Your task to perform on an android device: find which apps use the phone's location Image 0: 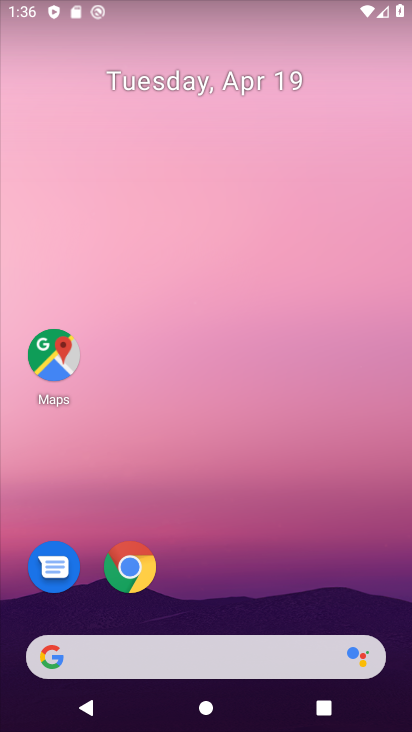
Step 0: drag from (239, 580) to (233, 205)
Your task to perform on an android device: find which apps use the phone's location Image 1: 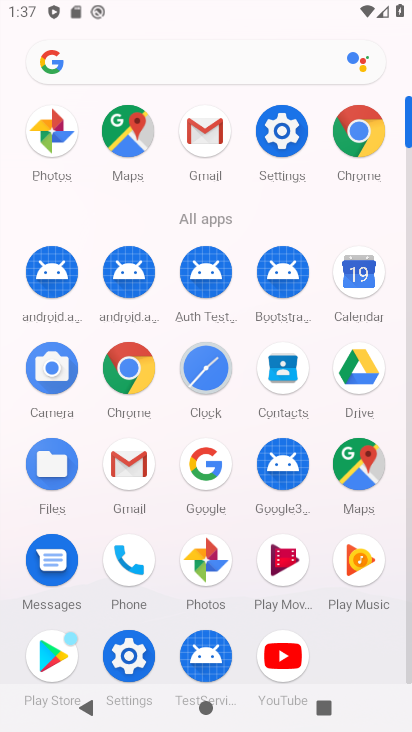
Step 1: click (291, 137)
Your task to perform on an android device: find which apps use the phone's location Image 2: 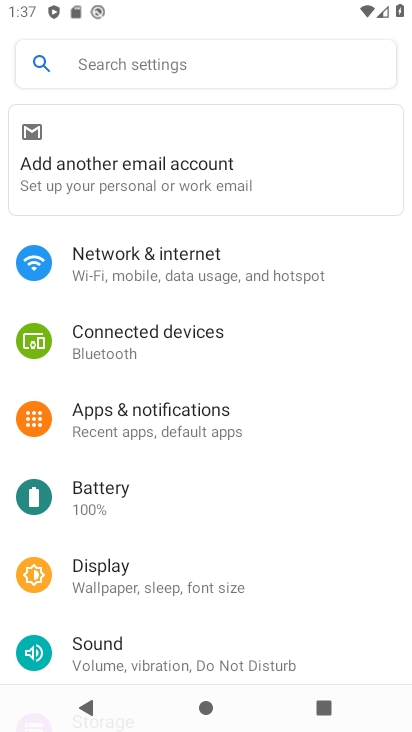
Step 2: drag from (207, 603) to (186, 178)
Your task to perform on an android device: find which apps use the phone's location Image 3: 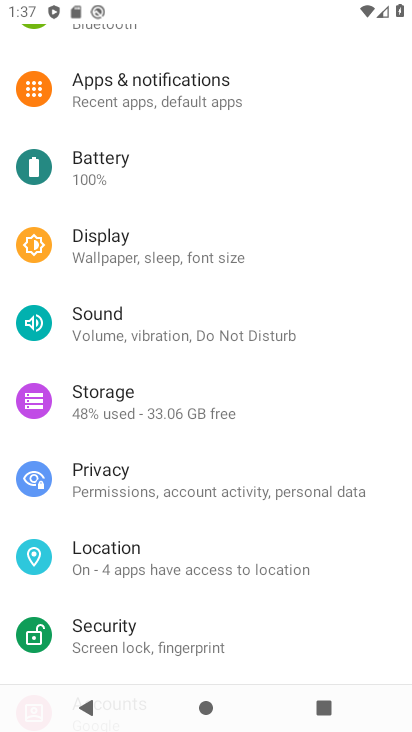
Step 3: click (150, 560)
Your task to perform on an android device: find which apps use the phone's location Image 4: 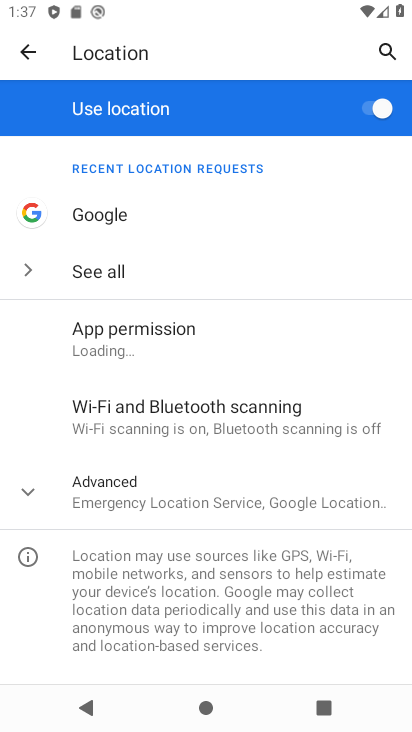
Step 4: click (144, 346)
Your task to perform on an android device: find which apps use the phone's location Image 5: 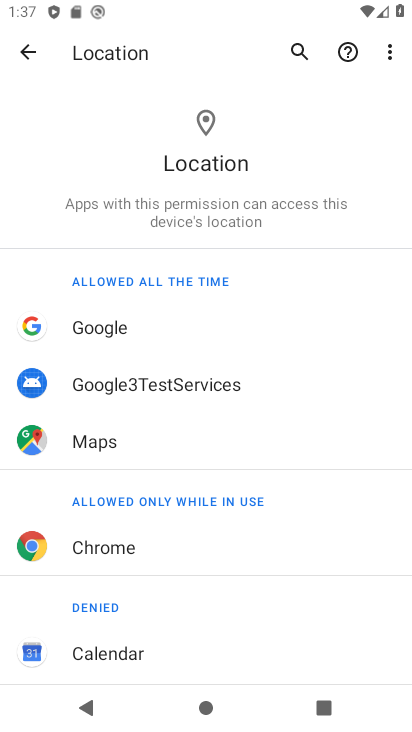
Step 5: task complete